Your task to perform on an android device: Open network settings Image 0: 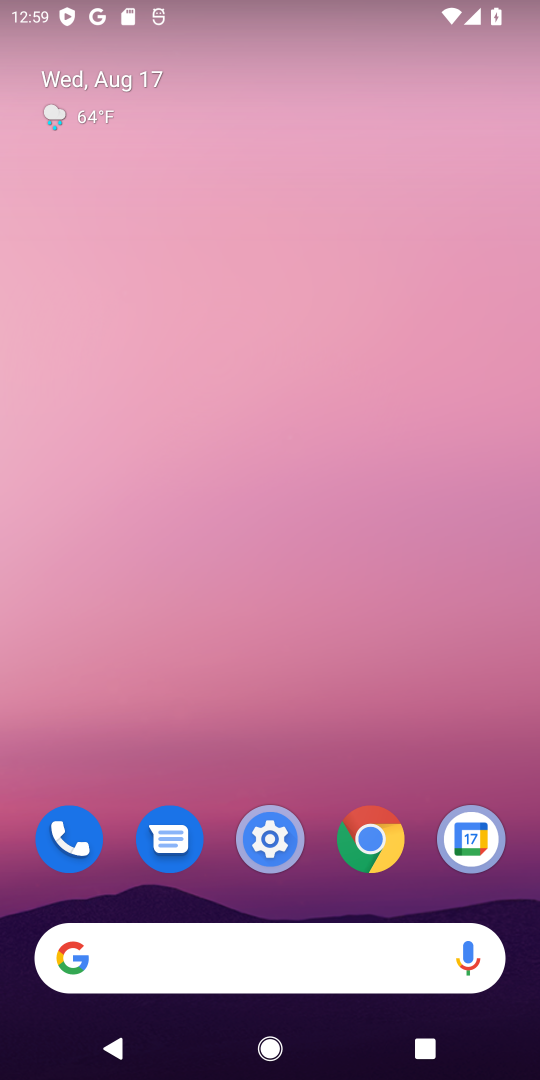
Step 0: drag from (260, 967) to (238, 338)
Your task to perform on an android device: Open network settings Image 1: 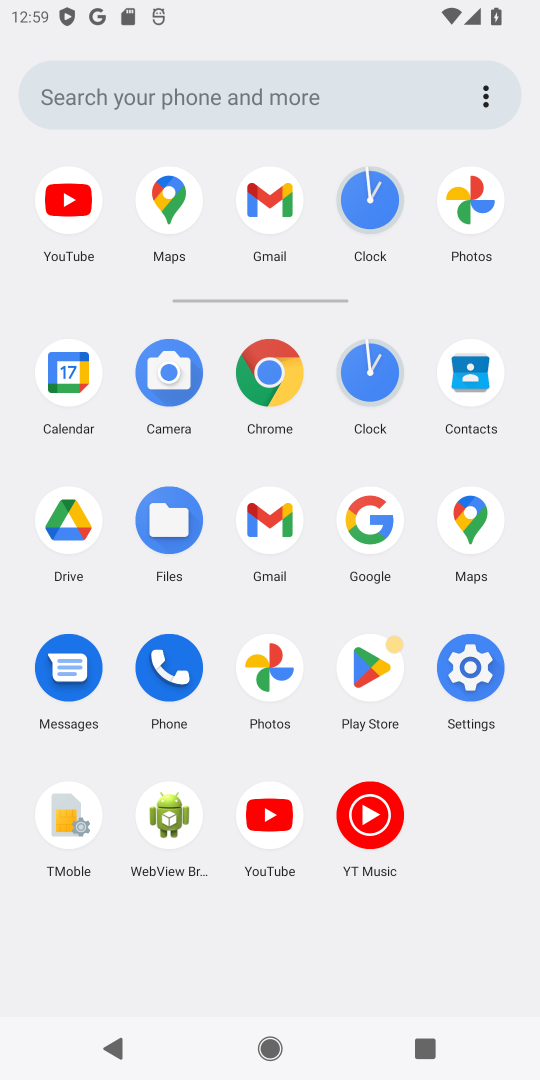
Step 1: click (468, 669)
Your task to perform on an android device: Open network settings Image 2: 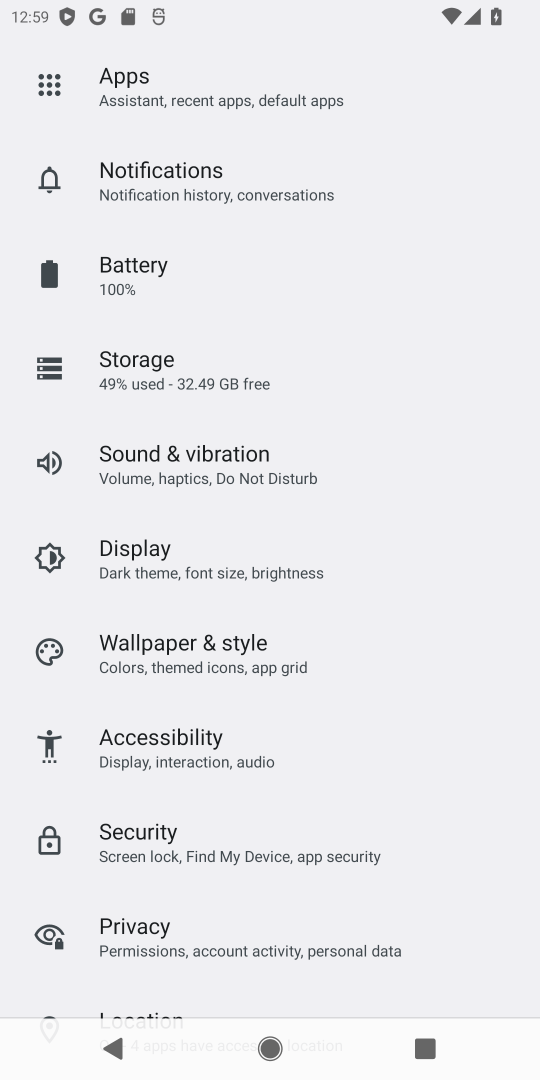
Step 2: drag from (293, 296) to (322, 641)
Your task to perform on an android device: Open network settings Image 3: 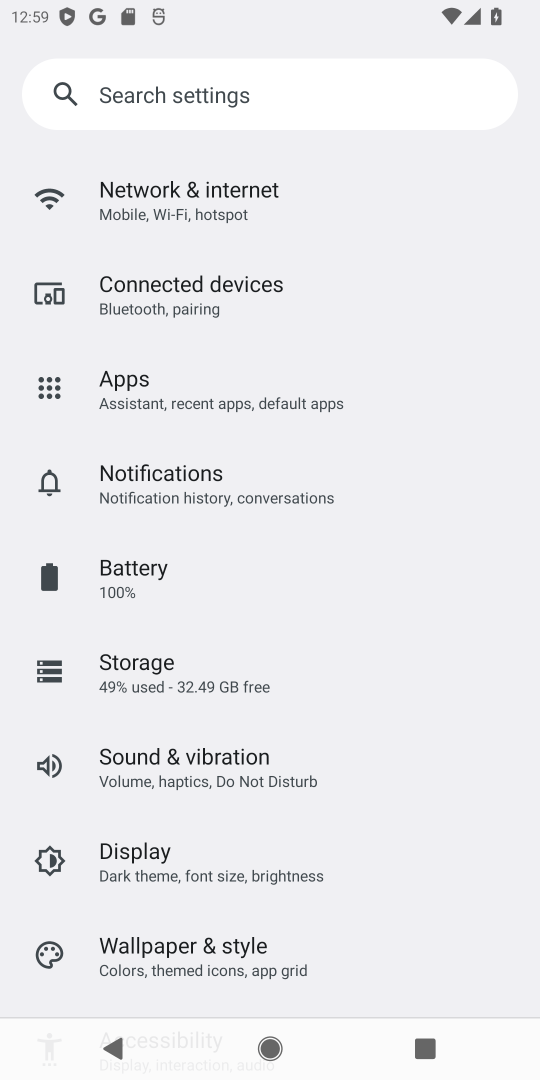
Step 3: click (232, 201)
Your task to perform on an android device: Open network settings Image 4: 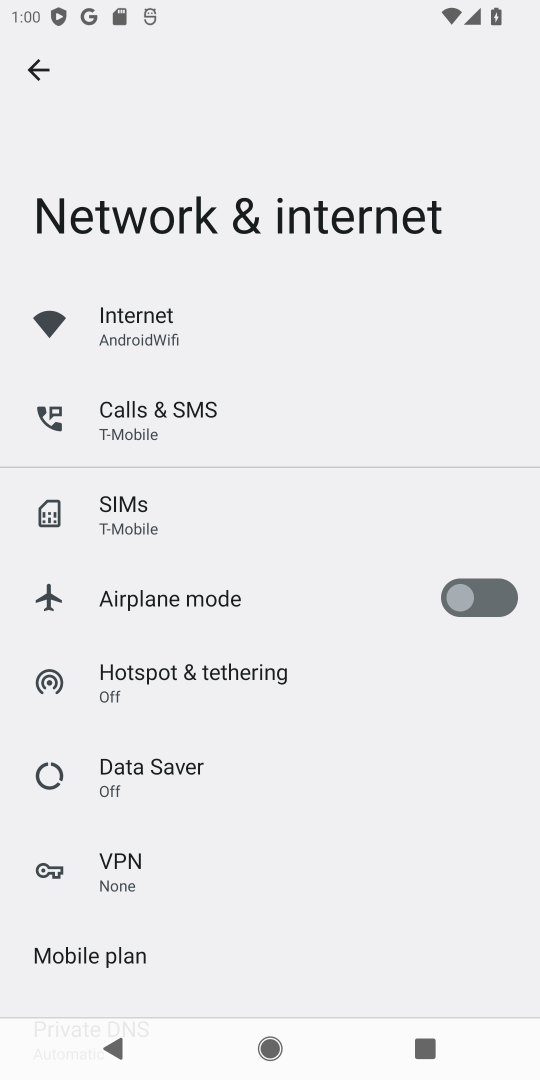
Step 4: task complete